Your task to perform on an android device: allow notifications from all sites in the chrome app Image 0: 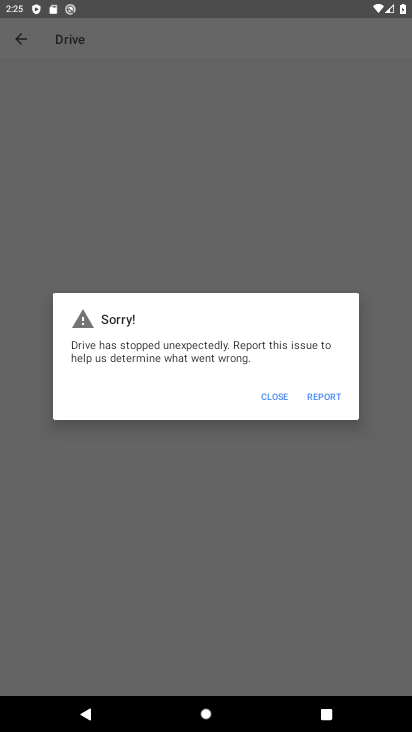
Step 0: press home button
Your task to perform on an android device: allow notifications from all sites in the chrome app Image 1: 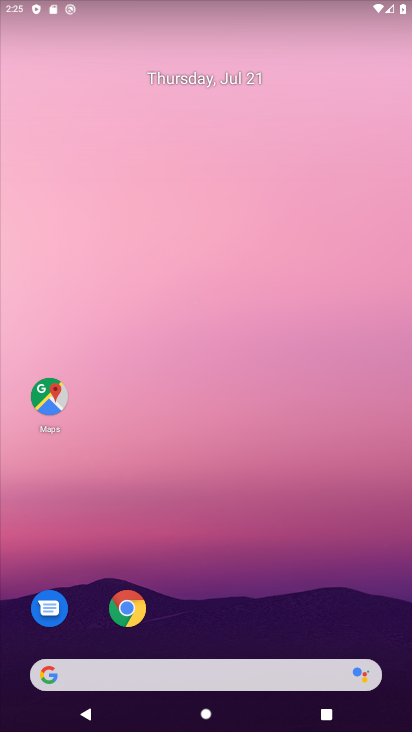
Step 1: click (127, 619)
Your task to perform on an android device: allow notifications from all sites in the chrome app Image 2: 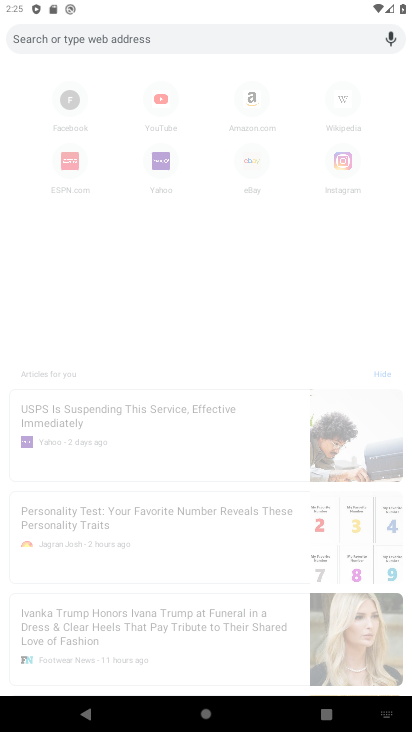
Step 2: press back button
Your task to perform on an android device: allow notifications from all sites in the chrome app Image 3: 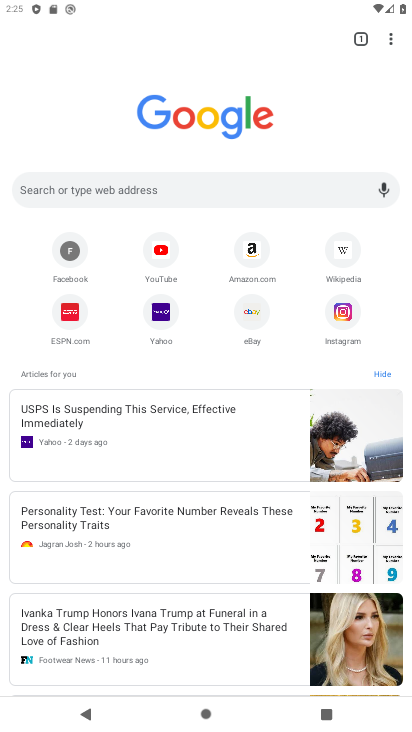
Step 3: drag from (389, 42) to (293, 368)
Your task to perform on an android device: allow notifications from all sites in the chrome app Image 4: 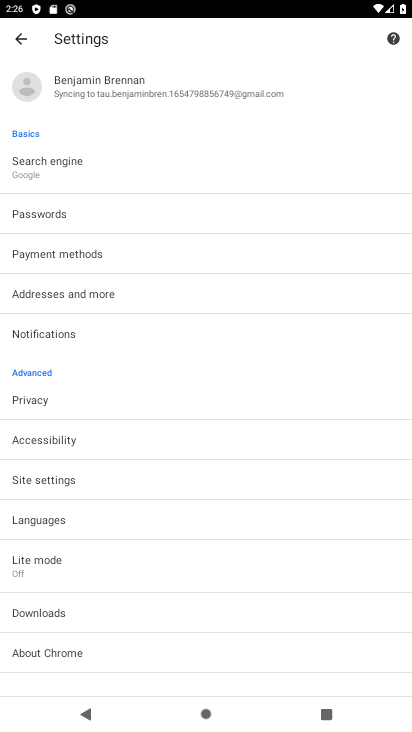
Step 4: click (62, 479)
Your task to perform on an android device: allow notifications from all sites in the chrome app Image 5: 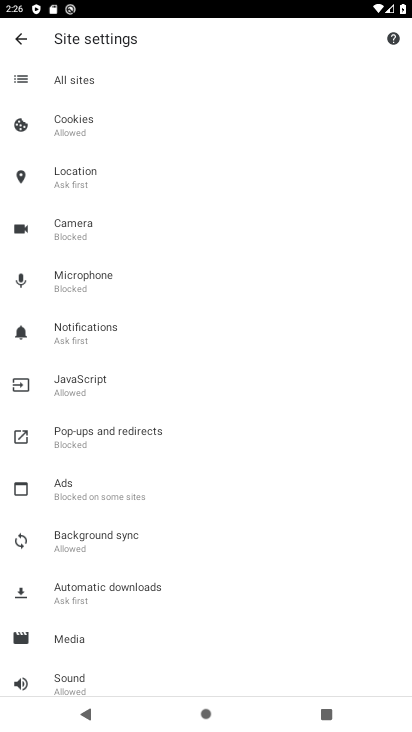
Step 5: click (93, 357)
Your task to perform on an android device: allow notifications from all sites in the chrome app Image 6: 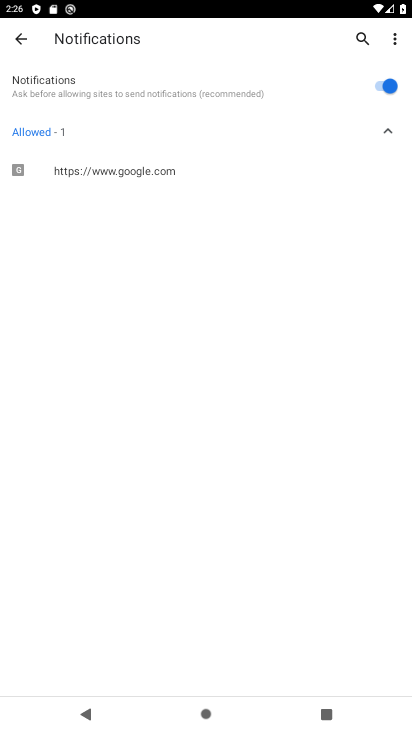
Step 6: task complete